Your task to perform on an android device: toggle sleep mode Image 0: 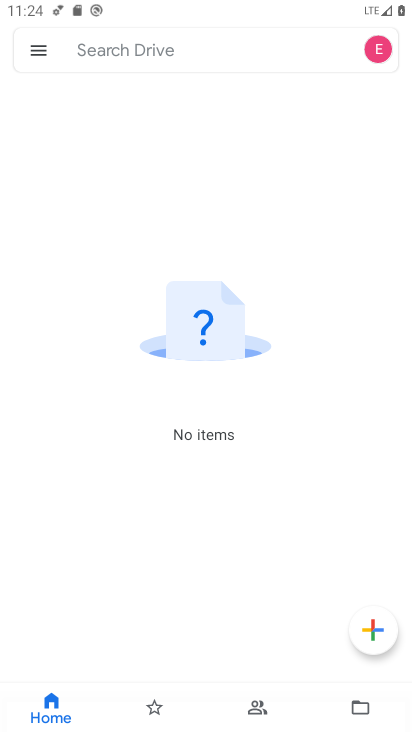
Step 0: press enter
Your task to perform on an android device: toggle sleep mode Image 1: 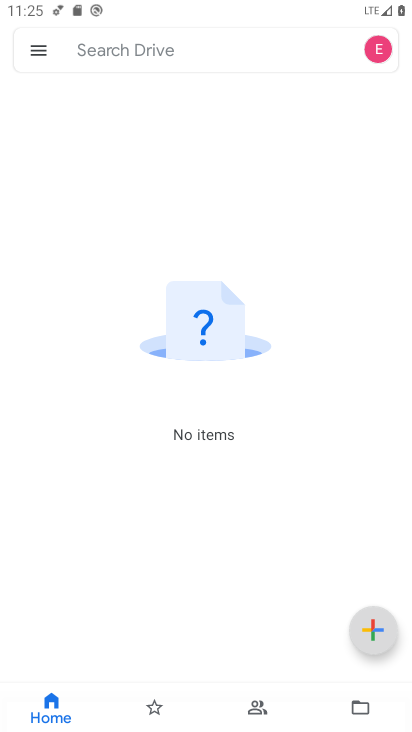
Step 1: task complete